Your task to perform on an android device: toggle airplane mode Image 0: 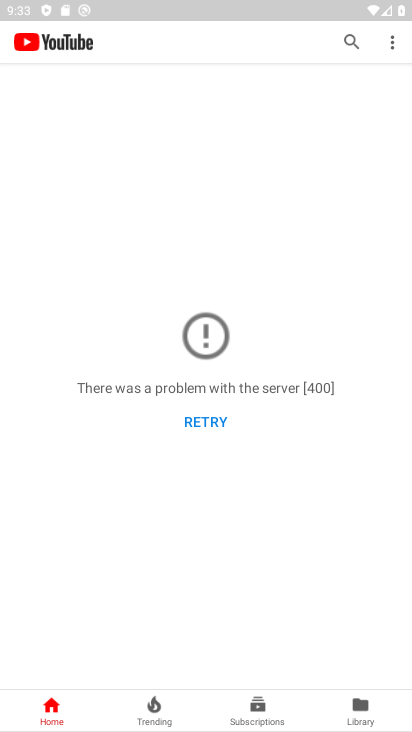
Step 0: drag from (350, 8) to (338, 508)
Your task to perform on an android device: toggle airplane mode Image 1: 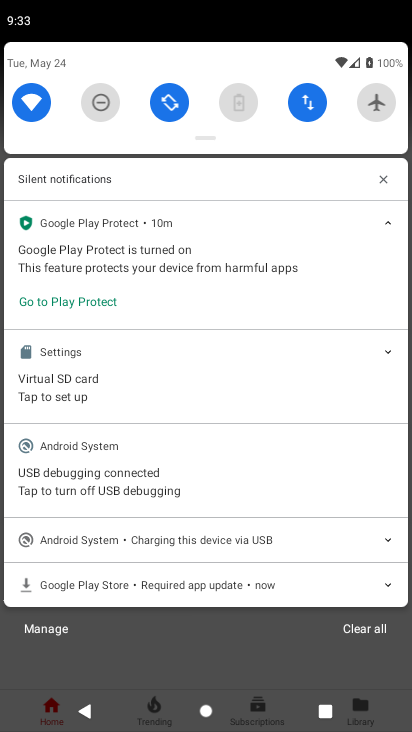
Step 1: click (377, 95)
Your task to perform on an android device: toggle airplane mode Image 2: 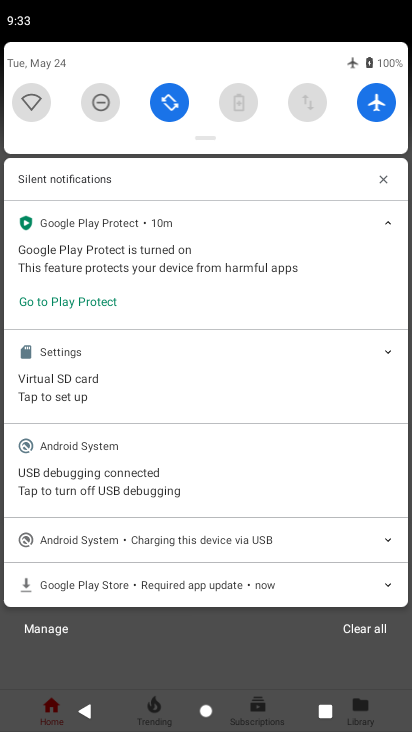
Step 2: task complete